Your task to perform on an android device: check battery use Image 0: 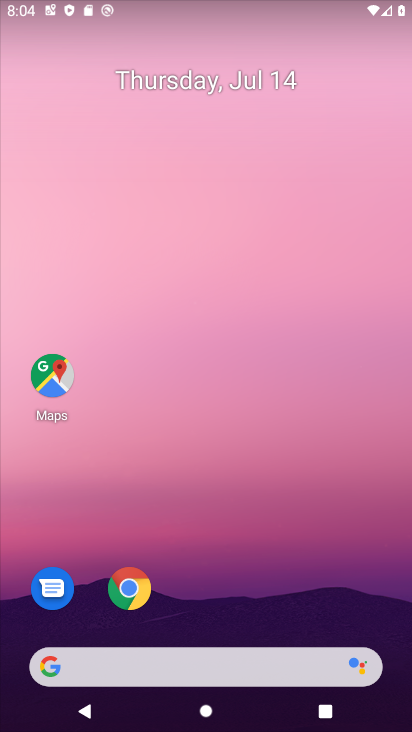
Step 0: drag from (315, 462) to (324, 0)
Your task to perform on an android device: check battery use Image 1: 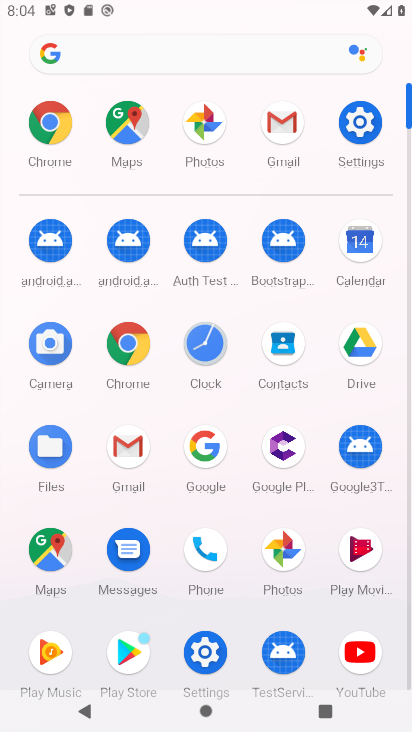
Step 1: click (365, 131)
Your task to perform on an android device: check battery use Image 2: 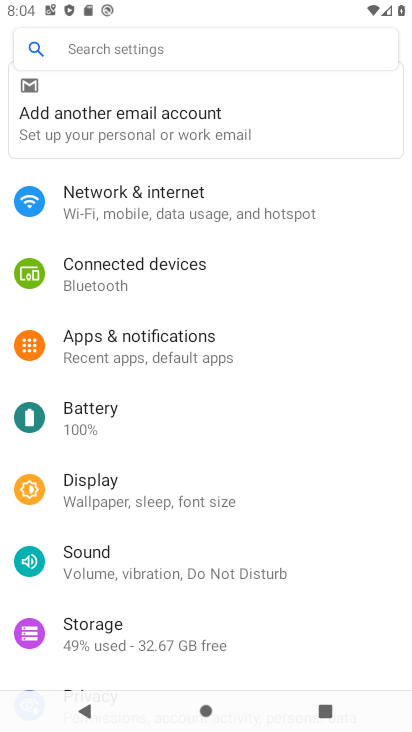
Step 2: click (116, 423)
Your task to perform on an android device: check battery use Image 3: 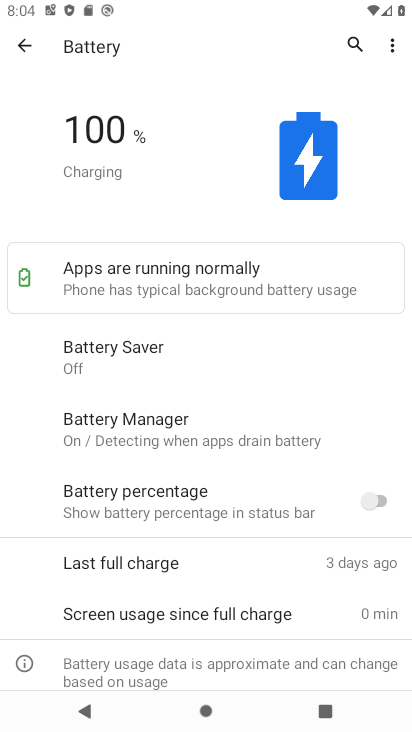
Step 3: click (394, 36)
Your task to perform on an android device: check battery use Image 4: 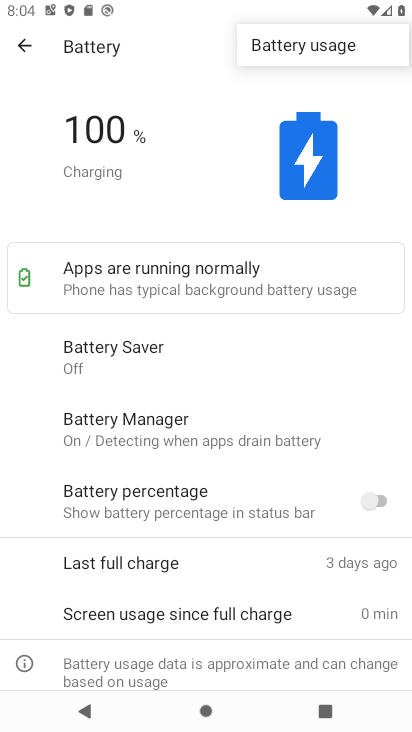
Step 4: click (310, 55)
Your task to perform on an android device: check battery use Image 5: 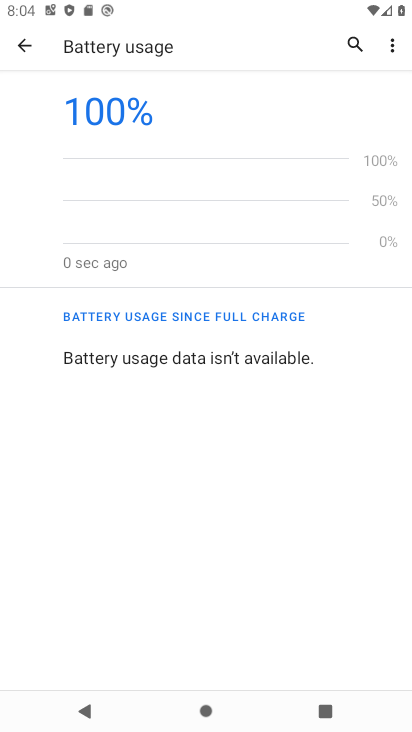
Step 5: task complete